Your task to perform on an android device: Open the calendar and show me this week's events? Image 0: 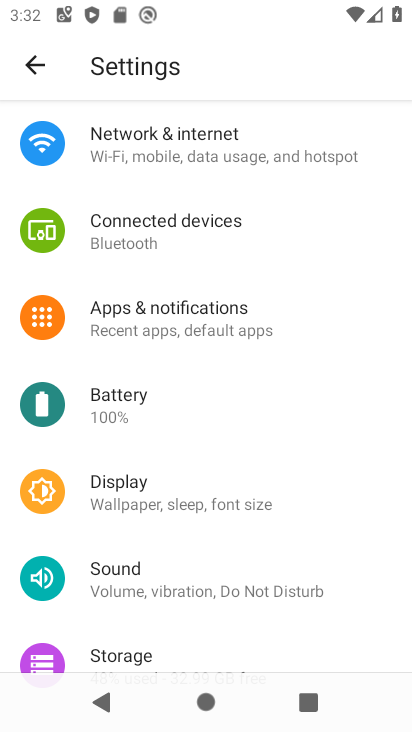
Step 0: press back button
Your task to perform on an android device: Open the calendar and show me this week's events? Image 1: 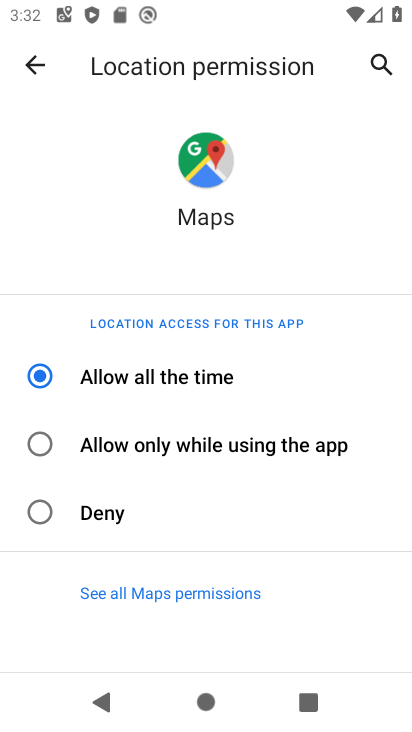
Step 1: press back button
Your task to perform on an android device: Open the calendar and show me this week's events? Image 2: 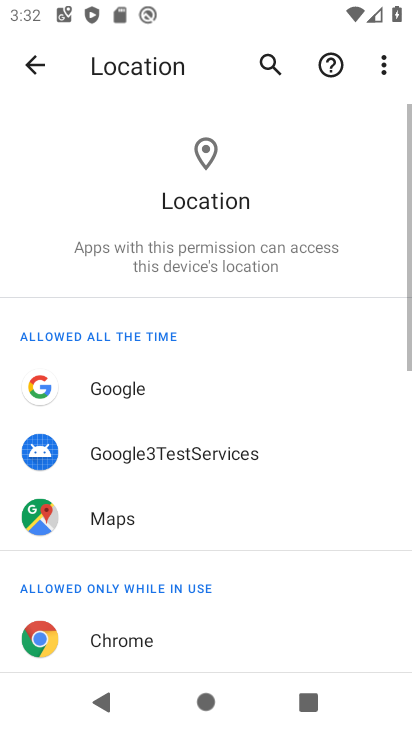
Step 2: press back button
Your task to perform on an android device: Open the calendar and show me this week's events? Image 3: 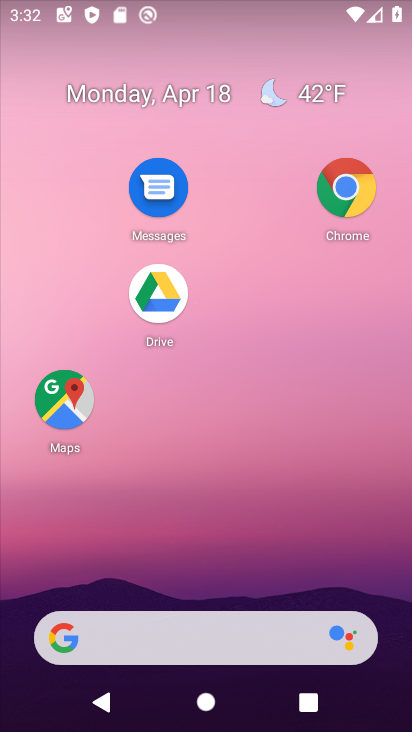
Step 3: drag from (255, 520) to (226, 74)
Your task to perform on an android device: Open the calendar and show me this week's events? Image 4: 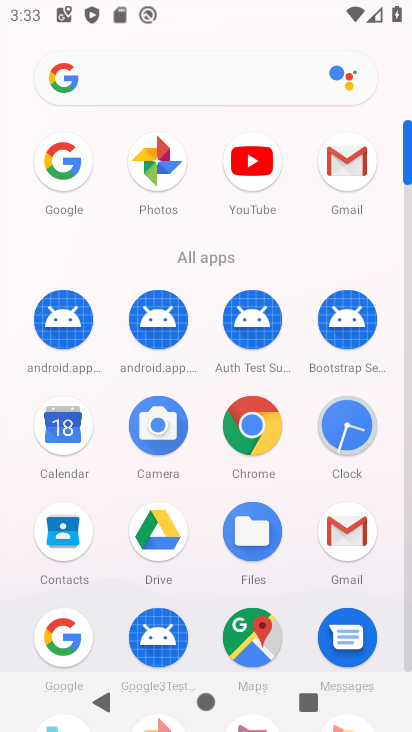
Step 4: click (73, 424)
Your task to perform on an android device: Open the calendar and show me this week's events? Image 5: 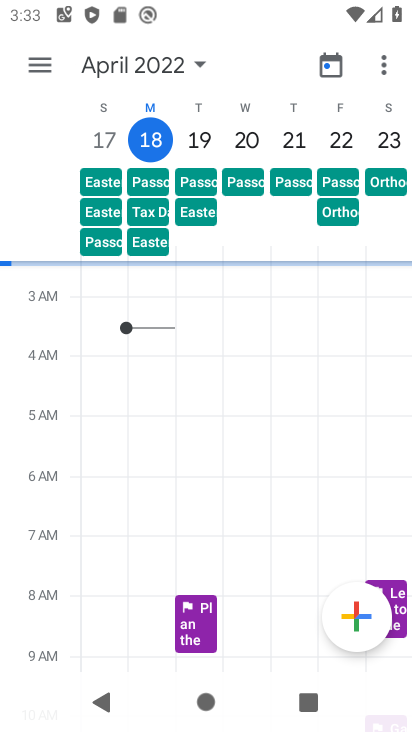
Step 5: click (199, 64)
Your task to perform on an android device: Open the calendar and show me this week's events? Image 6: 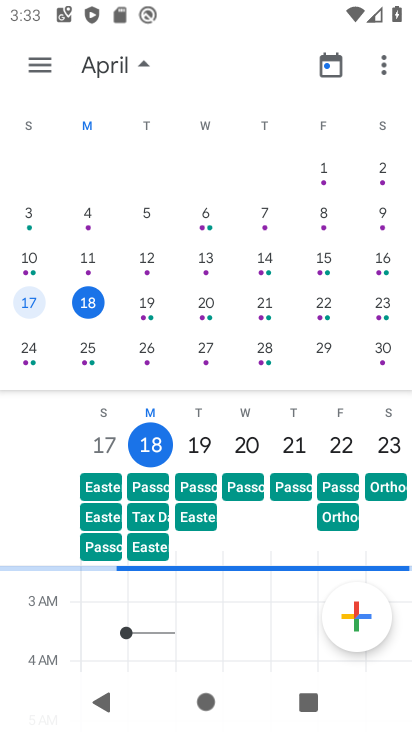
Step 6: click (264, 307)
Your task to perform on an android device: Open the calendar and show me this week's events? Image 7: 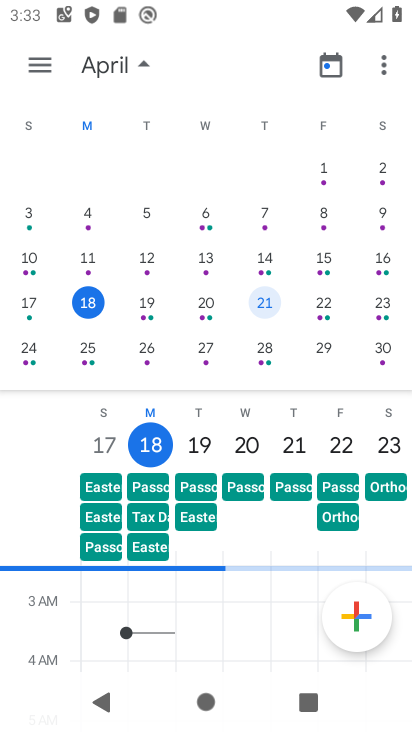
Step 7: click (45, 76)
Your task to perform on an android device: Open the calendar and show me this week's events? Image 8: 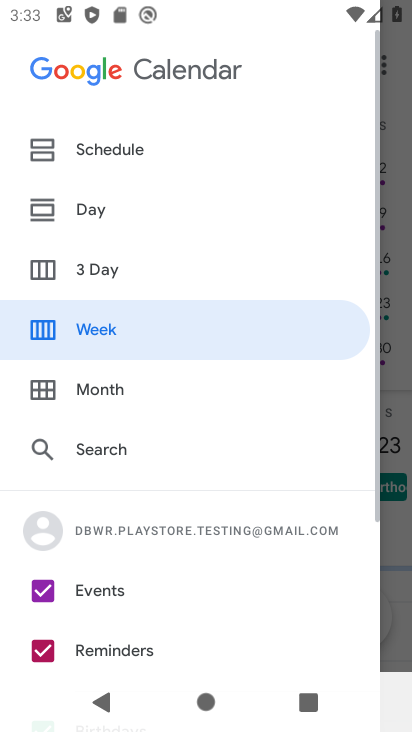
Step 8: click (111, 321)
Your task to perform on an android device: Open the calendar and show me this week's events? Image 9: 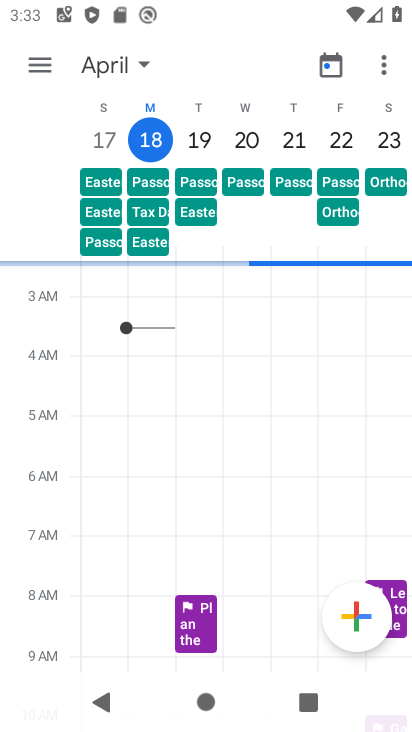
Step 9: task complete